Your task to perform on an android device: change the clock display to show seconds Image 0: 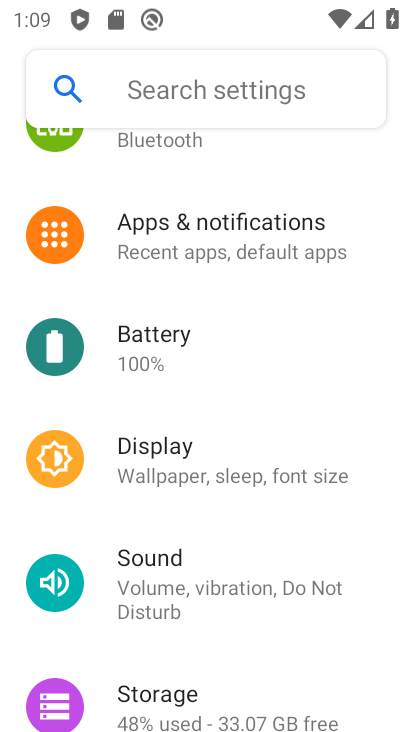
Step 0: press home button
Your task to perform on an android device: change the clock display to show seconds Image 1: 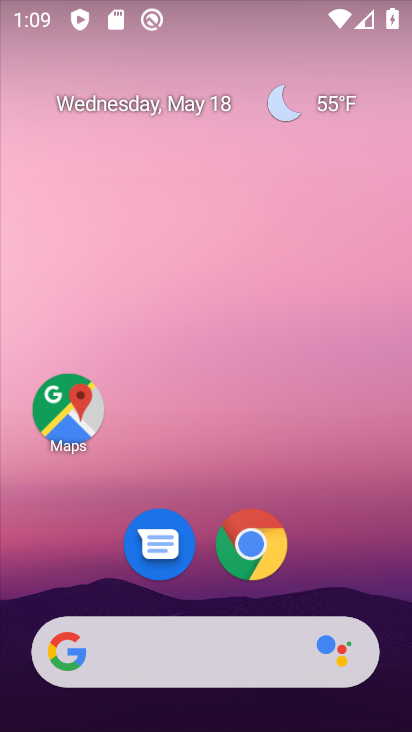
Step 1: drag from (204, 497) to (159, 266)
Your task to perform on an android device: change the clock display to show seconds Image 2: 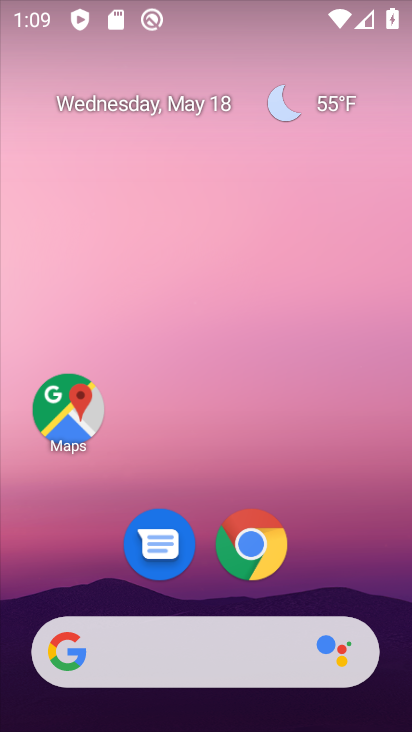
Step 2: drag from (338, 558) to (229, 150)
Your task to perform on an android device: change the clock display to show seconds Image 3: 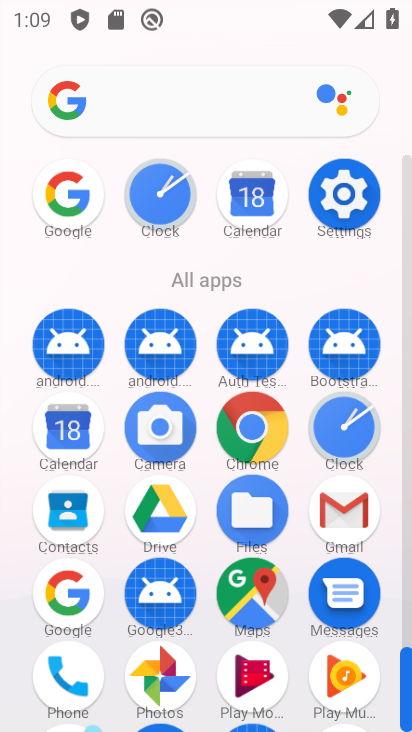
Step 3: click (345, 415)
Your task to perform on an android device: change the clock display to show seconds Image 4: 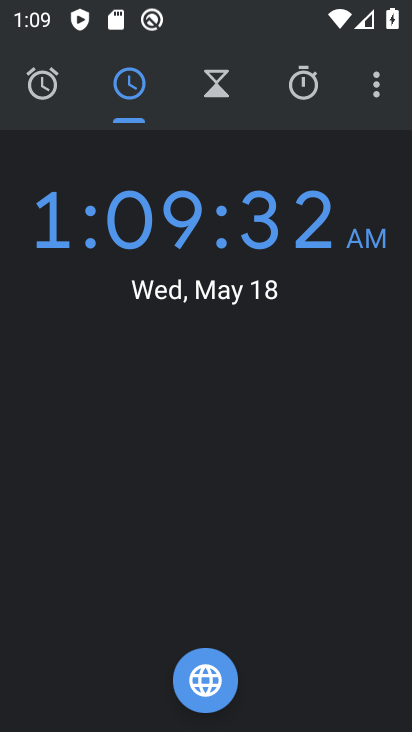
Step 4: click (382, 89)
Your task to perform on an android device: change the clock display to show seconds Image 5: 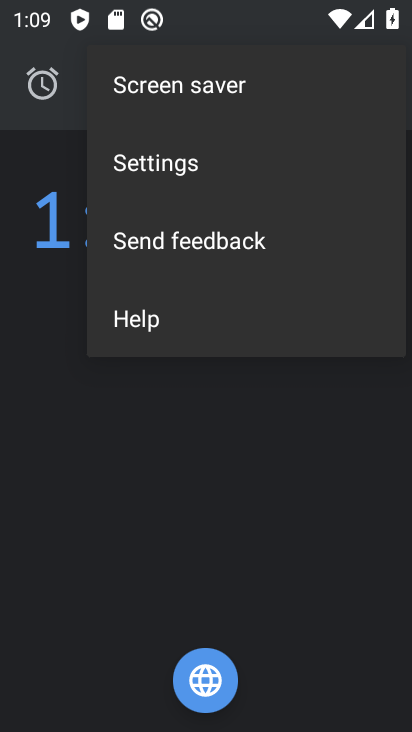
Step 5: click (182, 158)
Your task to perform on an android device: change the clock display to show seconds Image 6: 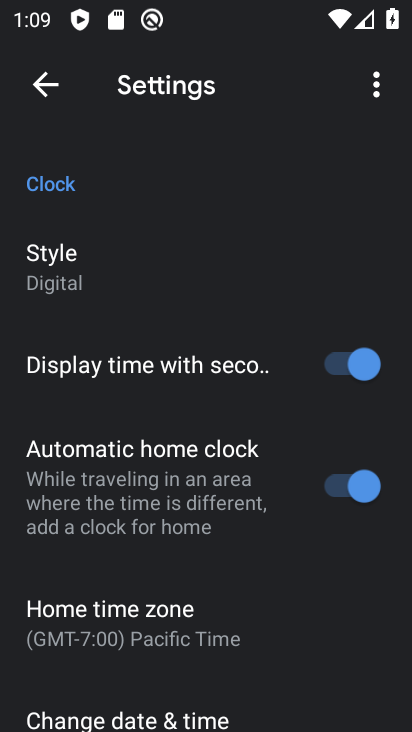
Step 6: click (335, 364)
Your task to perform on an android device: change the clock display to show seconds Image 7: 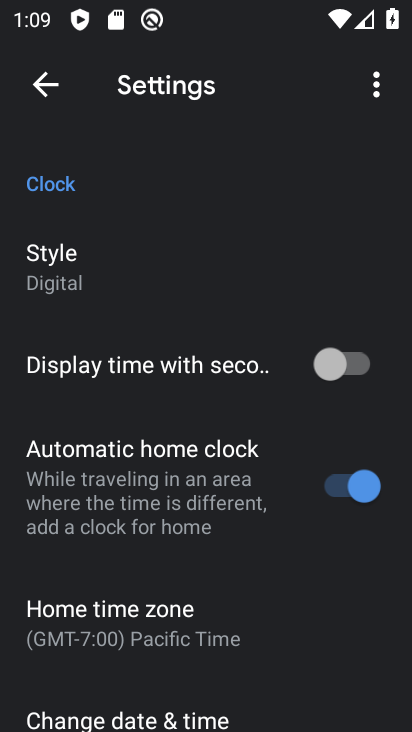
Step 7: task complete